Your task to perform on an android device: check storage Image 0: 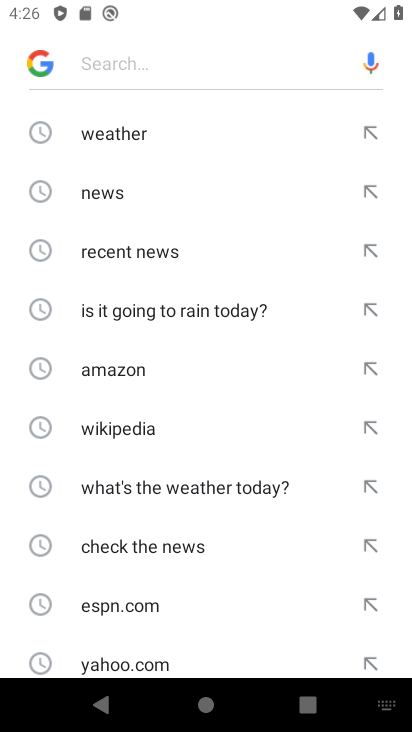
Step 0: press home button
Your task to perform on an android device: check storage Image 1: 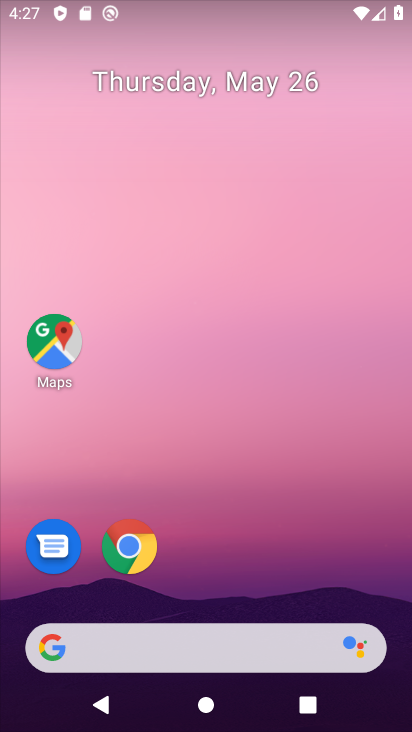
Step 1: drag from (296, 587) to (184, 55)
Your task to perform on an android device: check storage Image 2: 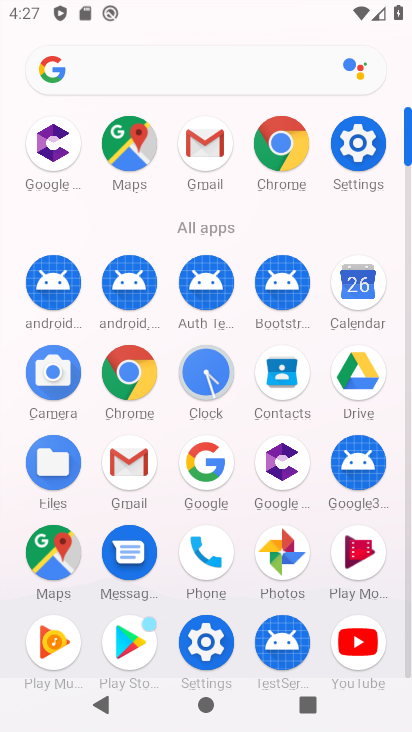
Step 2: click (365, 157)
Your task to perform on an android device: check storage Image 3: 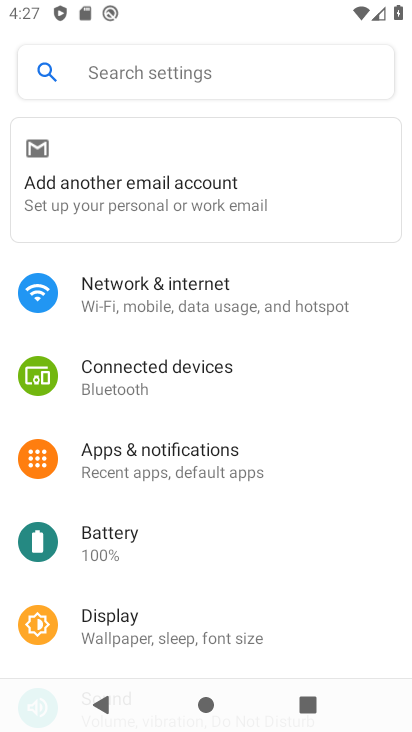
Step 3: drag from (228, 596) to (123, 63)
Your task to perform on an android device: check storage Image 4: 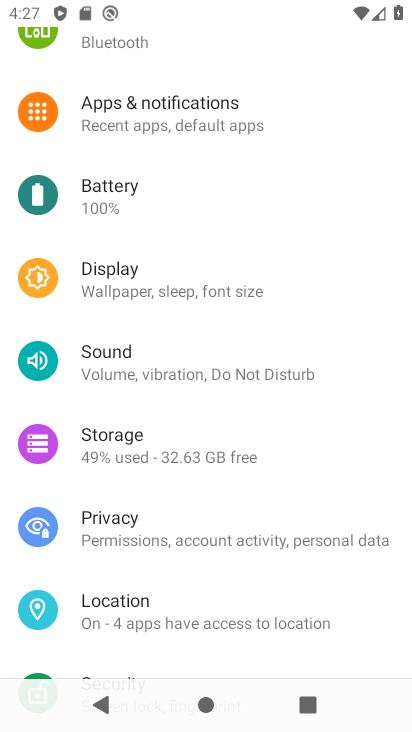
Step 4: click (151, 451)
Your task to perform on an android device: check storage Image 5: 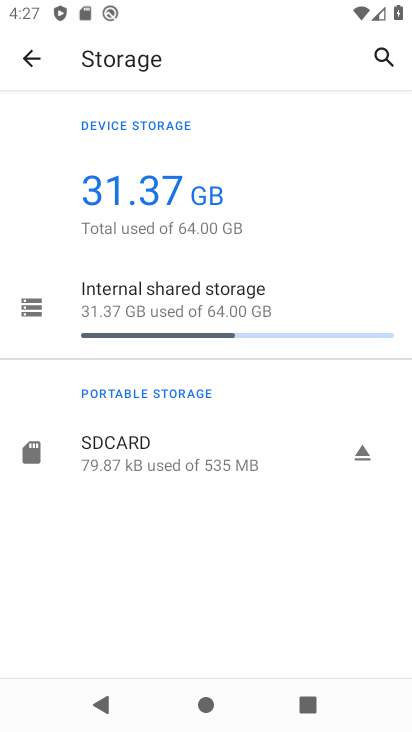
Step 5: task complete